Your task to perform on an android device: Open accessibility settings Image 0: 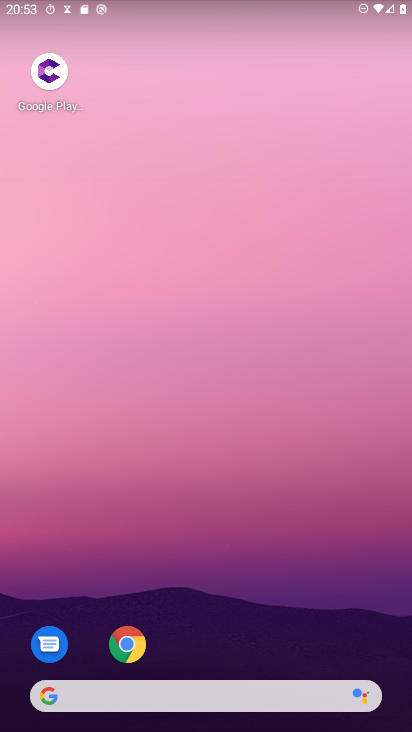
Step 0: drag from (28, 664) to (150, 238)
Your task to perform on an android device: Open accessibility settings Image 1: 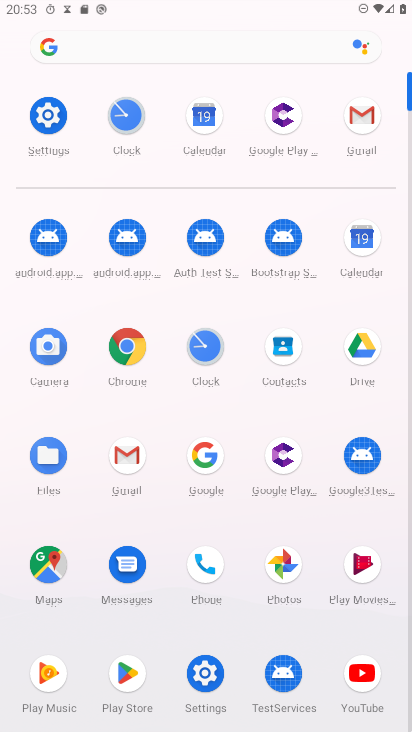
Step 1: click (205, 675)
Your task to perform on an android device: Open accessibility settings Image 2: 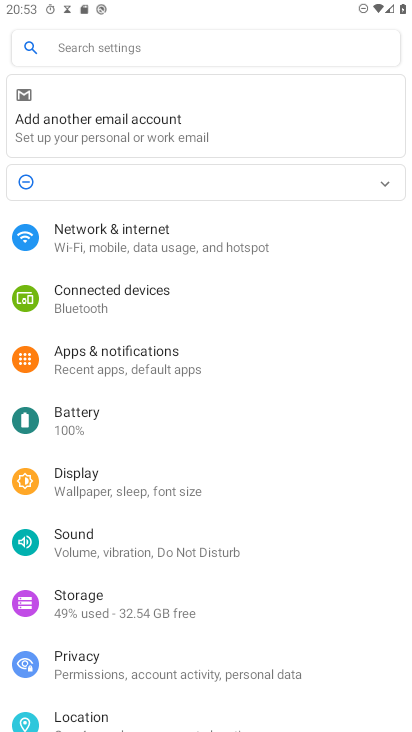
Step 2: drag from (266, 550) to (263, 215)
Your task to perform on an android device: Open accessibility settings Image 3: 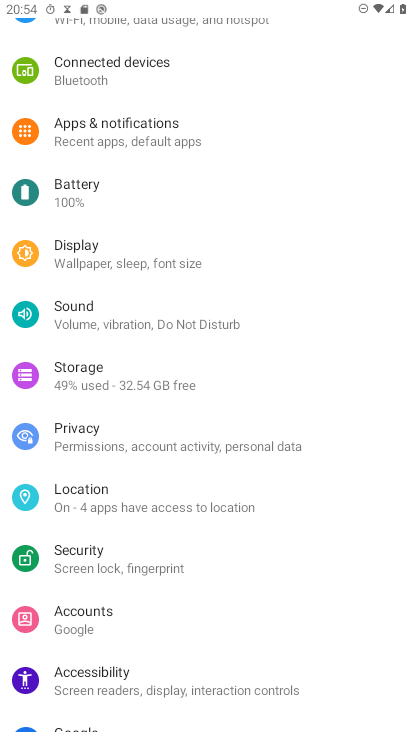
Step 3: click (179, 675)
Your task to perform on an android device: Open accessibility settings Image 4: 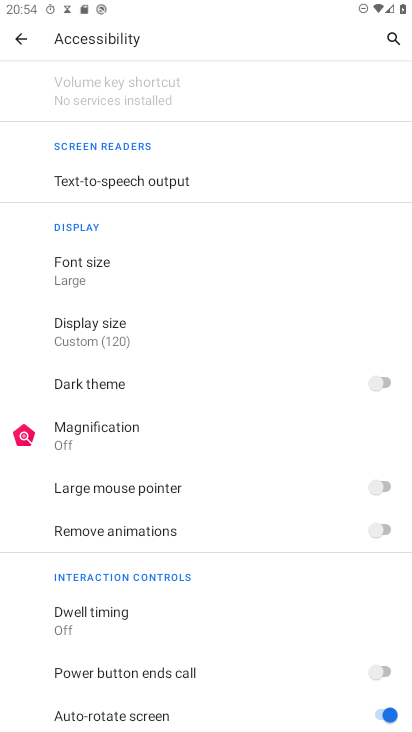
Step 4: task complete